Your task to perform on an android device: empty trash in google photos Image 0: 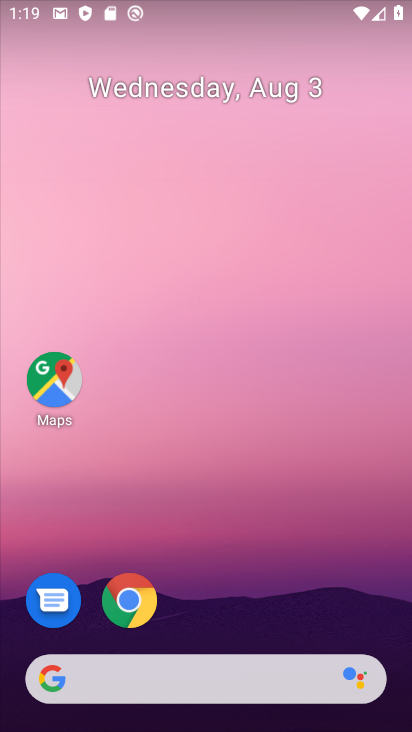
Step 0: click (231, 158)
Your task to perform on an android device: empty trash in google photos Image 1: 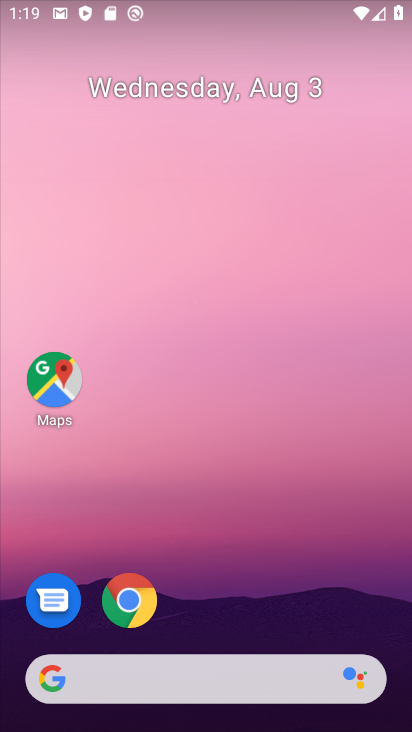
Step 1: drag from (247, 625) to (220, 182)
Your task to perform on an android device: empty trash in google photos Image 2: 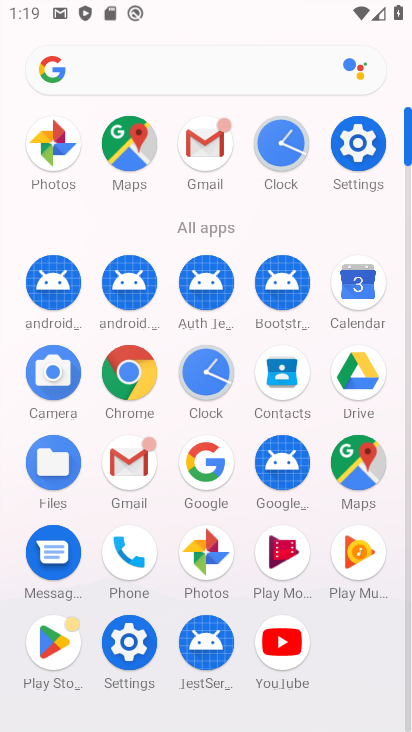
Step 2: click (193, 539)
Your task to perform on an android device: empty trash in google photos Image 3: 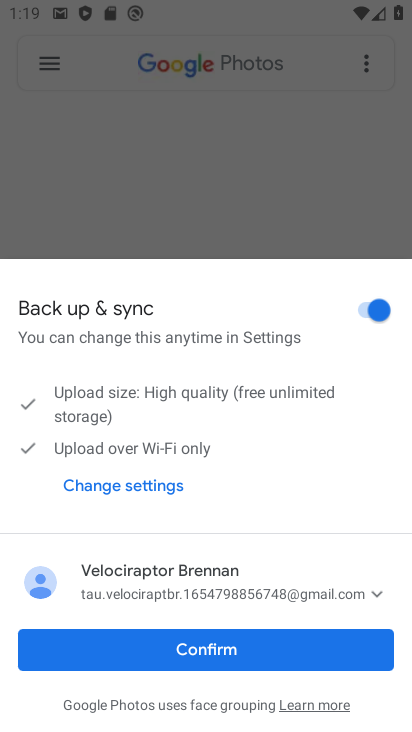
Step 3: click (232, 660)
Your task to perform on an android device: empty trash in google photos Image 4: 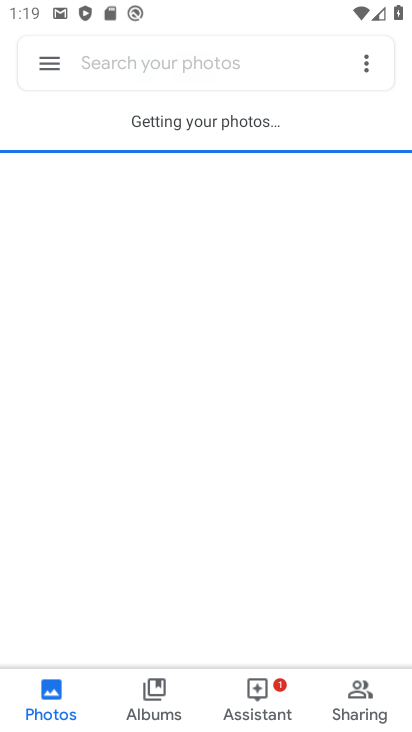
Step 4: click (45, 60)
Your task to perform on an android device: empty trash in google photos Image 5: 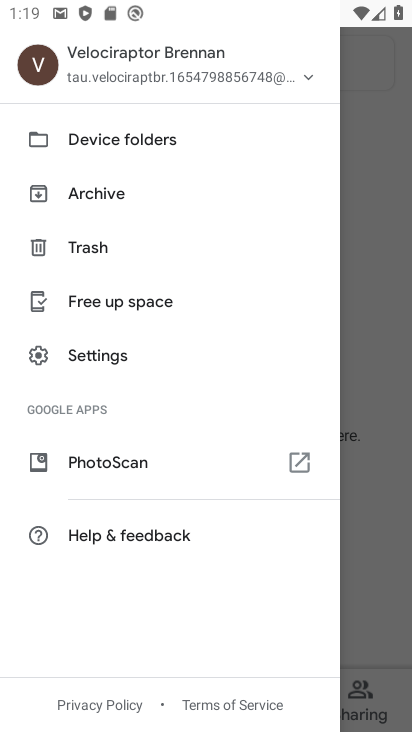
Step 5: click (133, 250)
Your task to perform on an android device: empty trash in google photos Image 6: 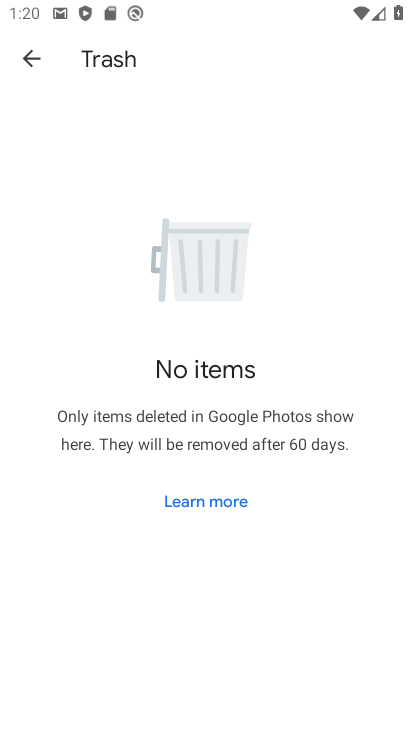
Step 6: click (133, 250)
Your task to perform on an android device: empty trash in google photos Image 7: 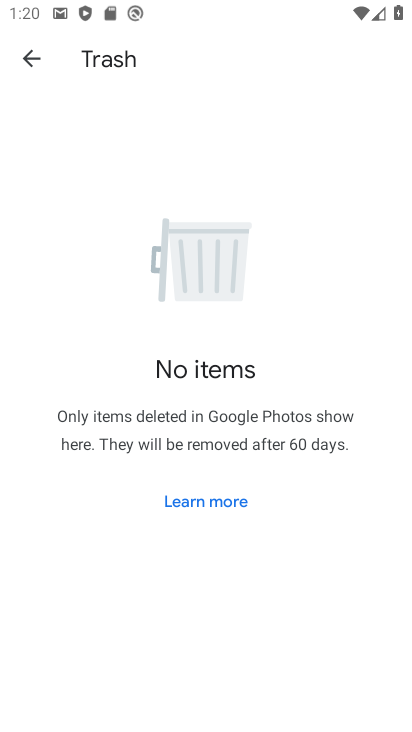
Step 7: task complete